Your task to perform on an android device: clear all cookies in the chrome app Image 0: 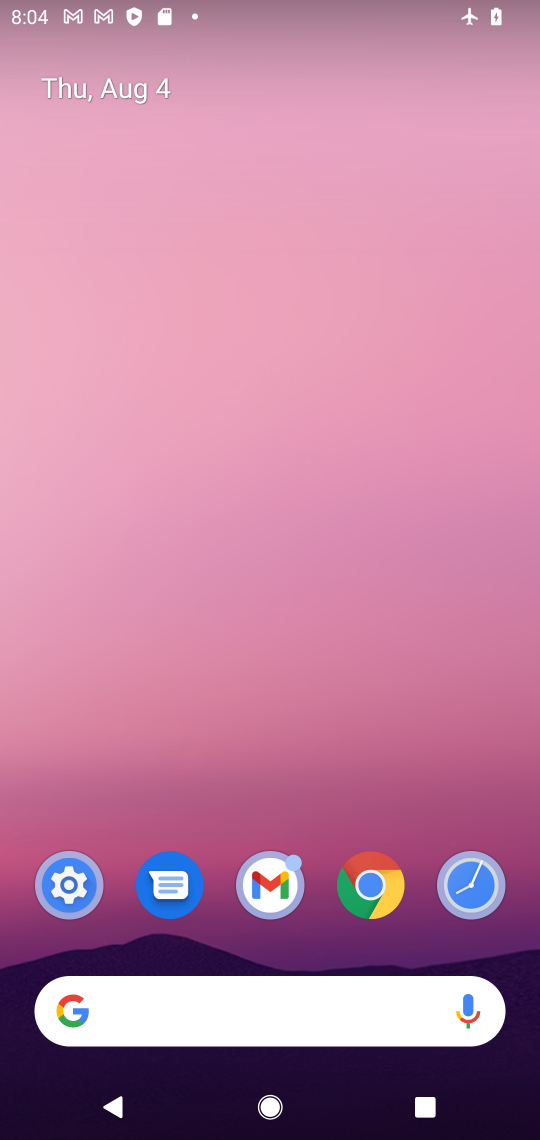
Step 0: press home button
Your task to perform on an android device: clear all cookies in the chrome app Image 1: 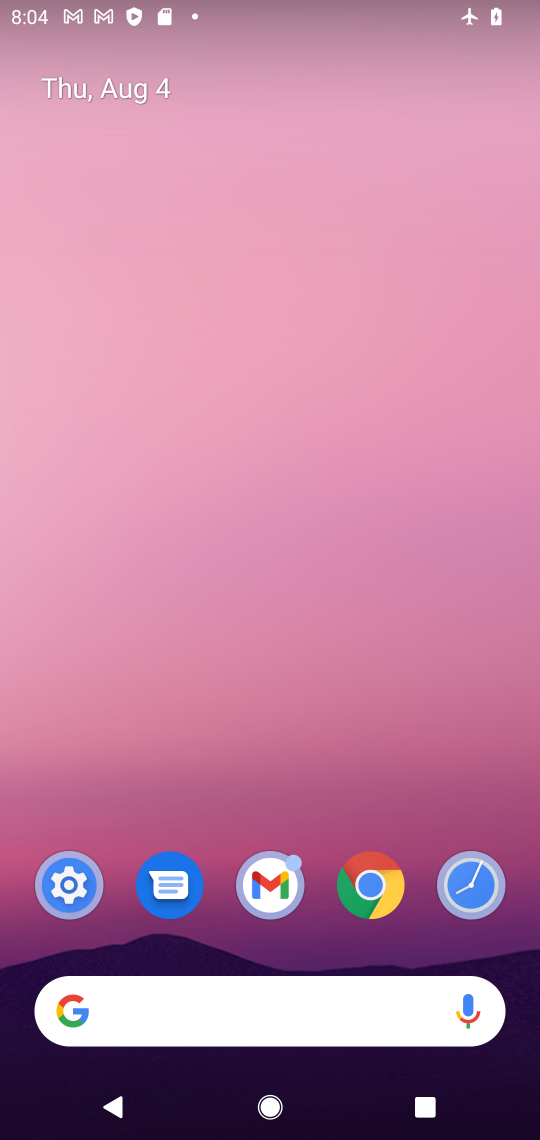
Step 1: press home button
Your task to perform on an android device: clear all cookies in the chrome app Image 2: 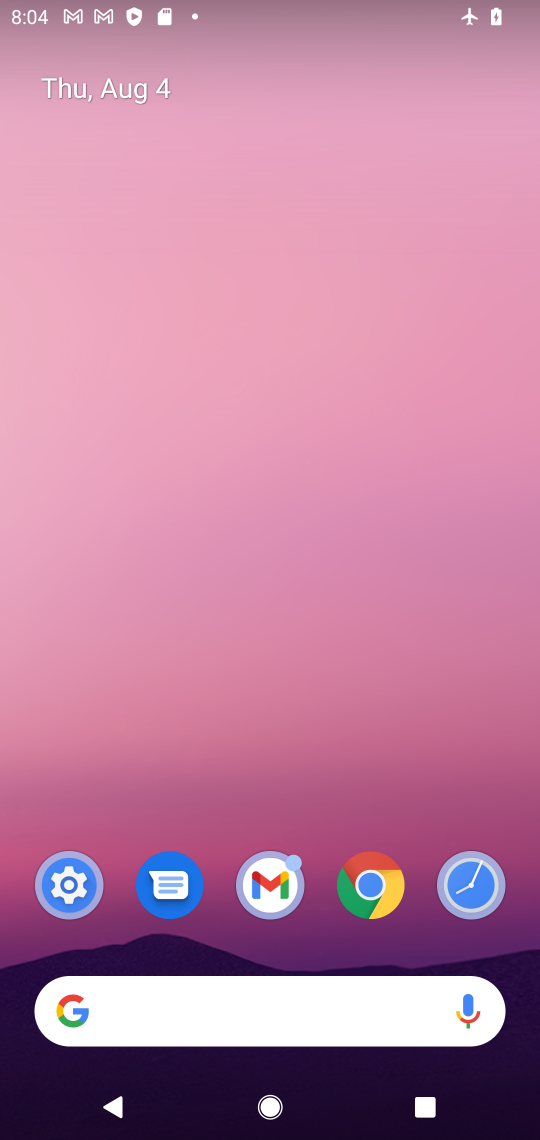
Step 2: press home button
Your task to perform on an android device: clear all cookies in the chrome app Image 3: 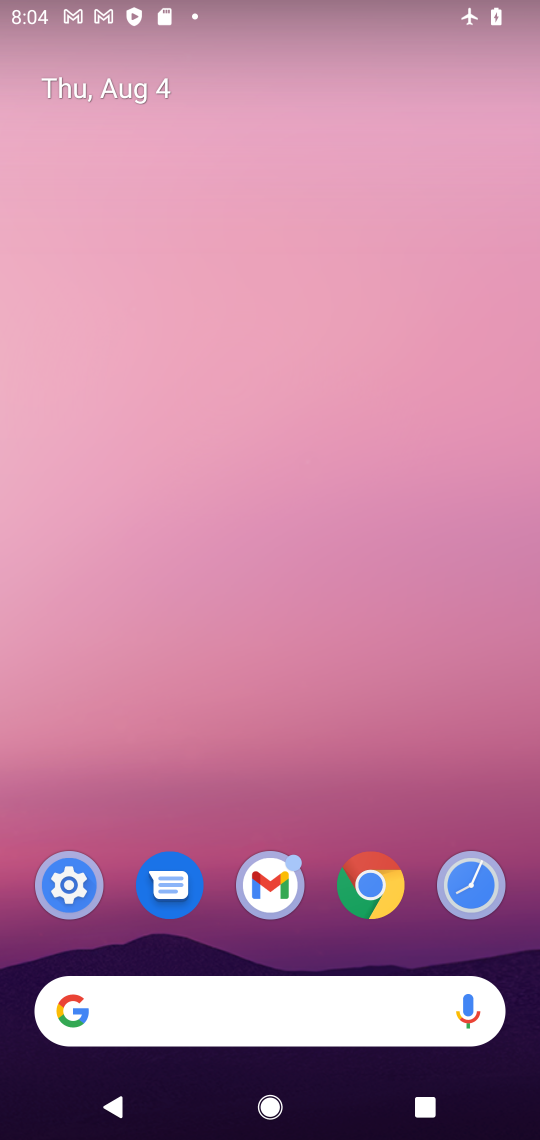
Step 3: click (379, 886)
Your task to perform on an android device: clear all cookies in the chrome app Image 4: 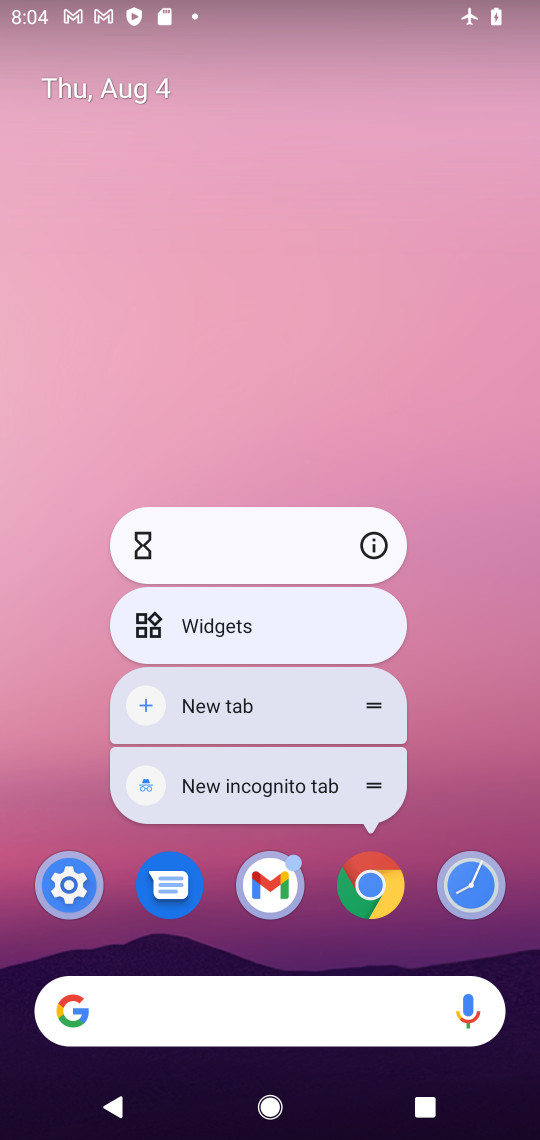
Step 4: click (383, 900)
Your task to perform on an android device: clear all cookies in the chrome app Image 5: 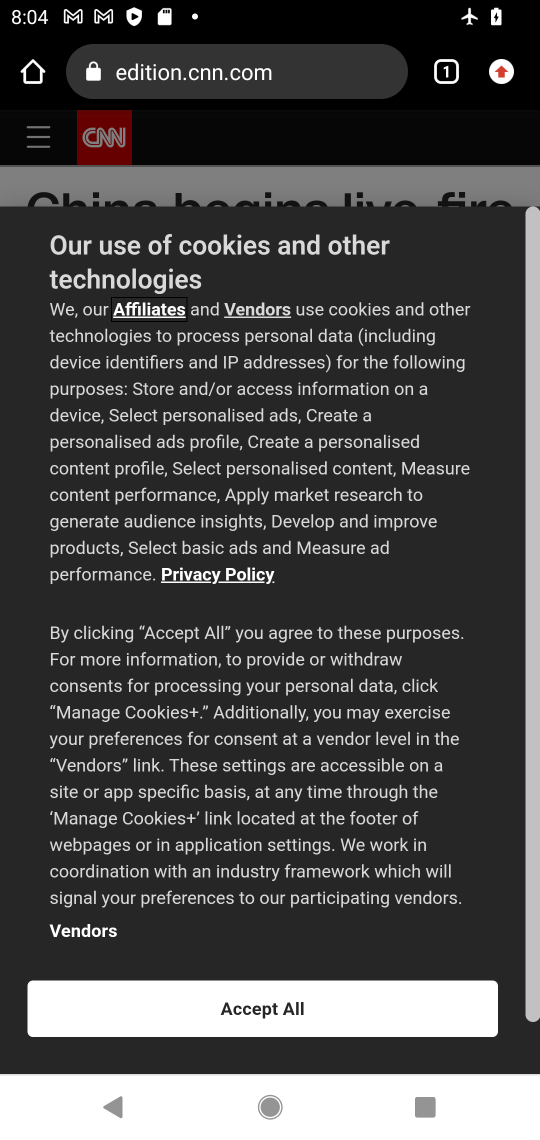
Step 5: click (492, 85)
Your task to perform on an android device: clear all cookies in the chrome app Image 6: 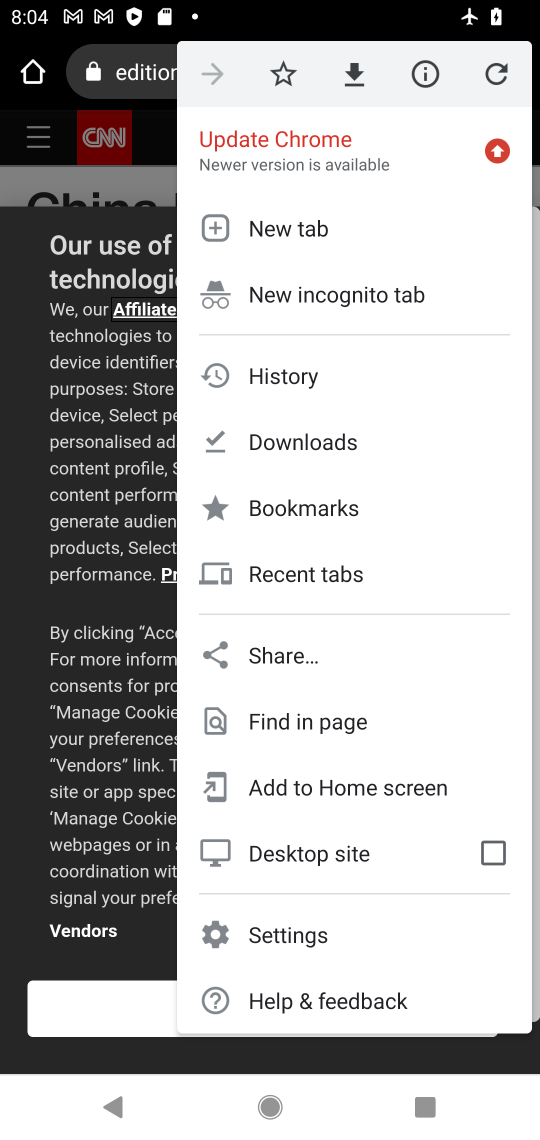
Step 6: click (286, 946)
Your task to perform on an android device: clear all cookies in the chrome app Image 7: 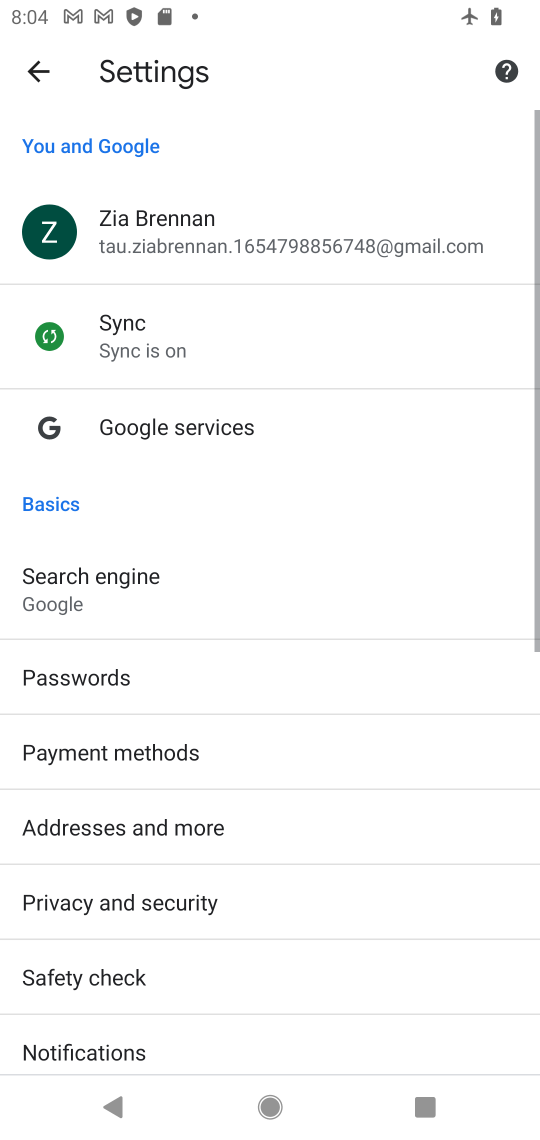
Step 7: drag from (225, 869) to (325, 118)
Your task to perform on an android device: clear all cookies in the chrome app Image 8: 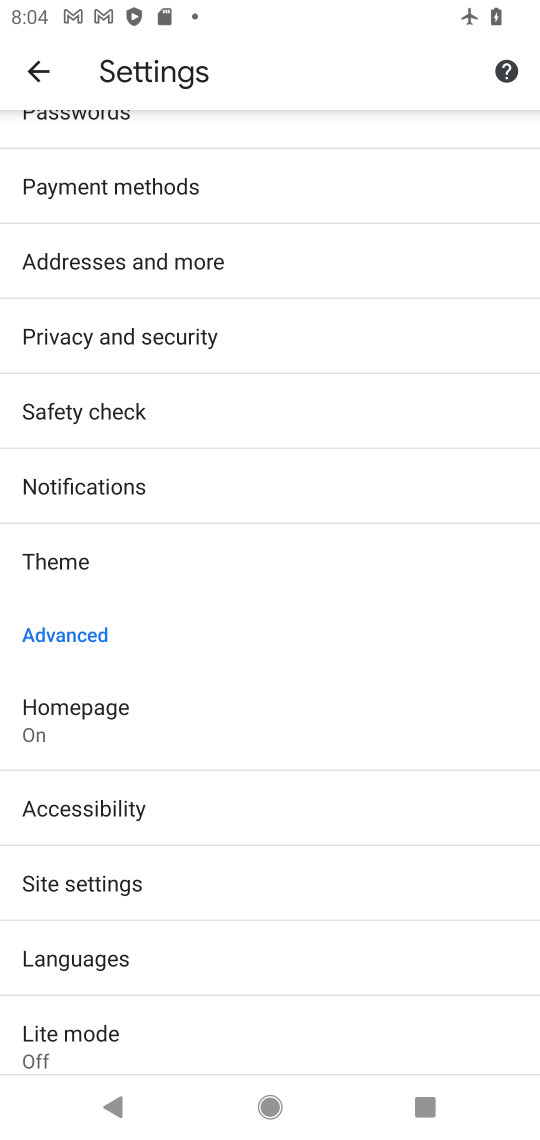
Step 8: drag from (151, 648) to (190, 59)
Your task to perform on an android device: clear all cookies in the chrome app Image 9: 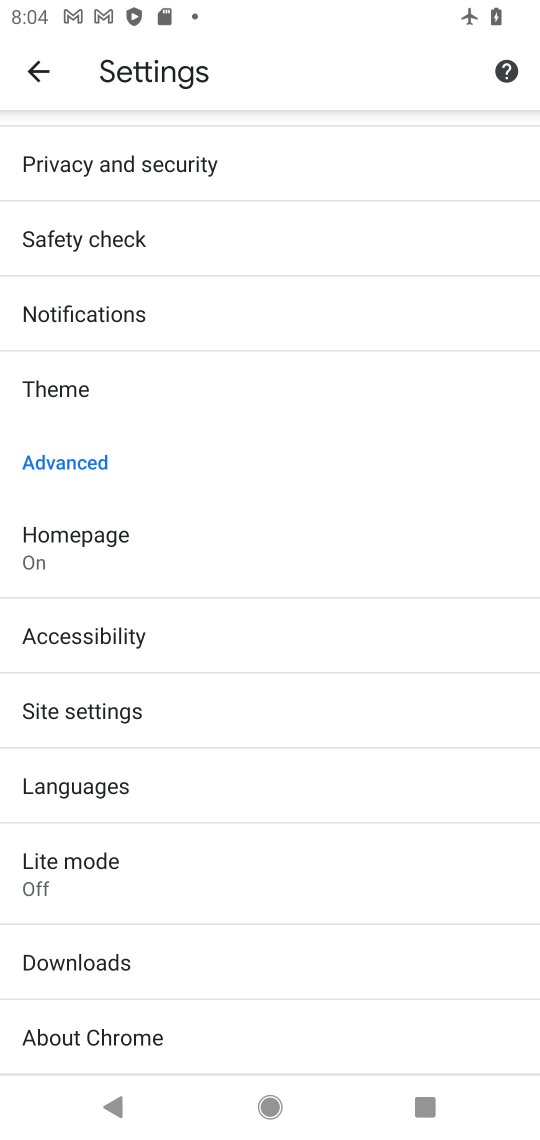
Step 9: drag from (116, 703) to (186, 334)
Your task to perform on an android device: clear all cookies in the chrome app Image 10: 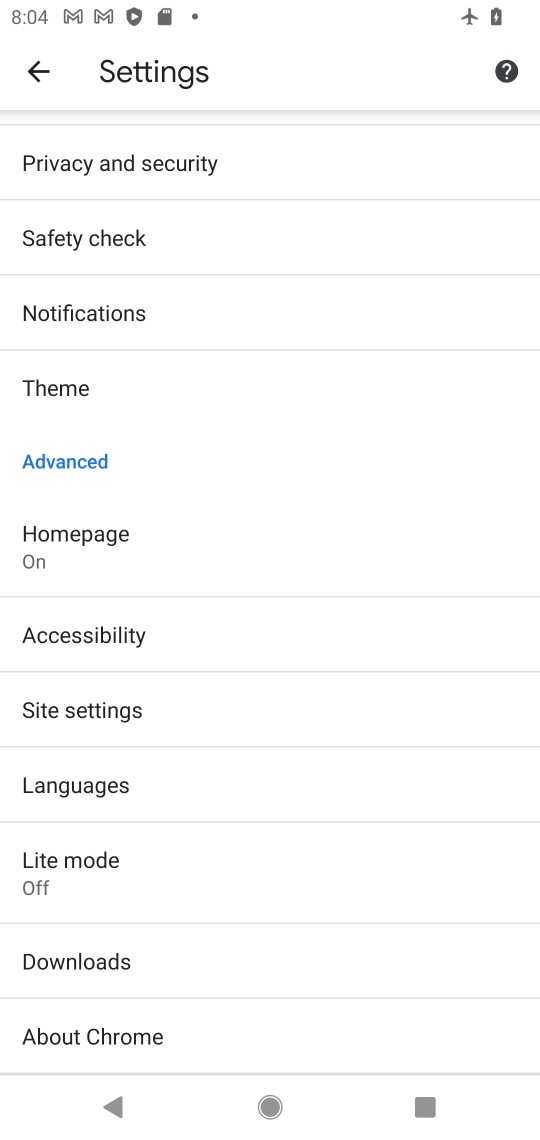
Step 10: drag from (186, 334) to (115, 818)
Your task to perform on an android device: clear all cookies in the chrome app Image 11: 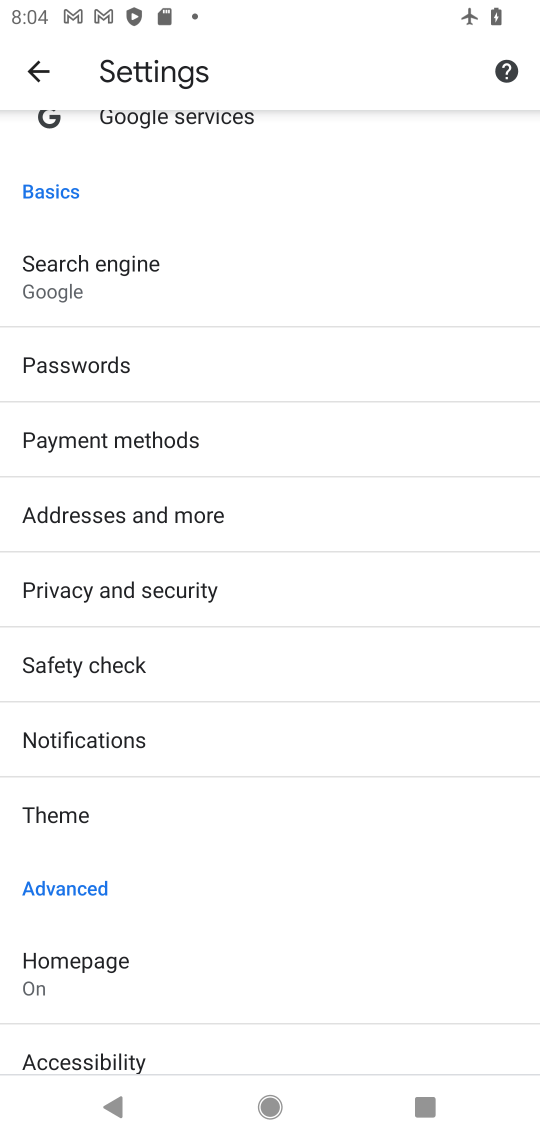
Step 11: drag from (162, 318) to (178, 581)
Your task to perform on an android device: clear all cookies in the chrome app Image 12: 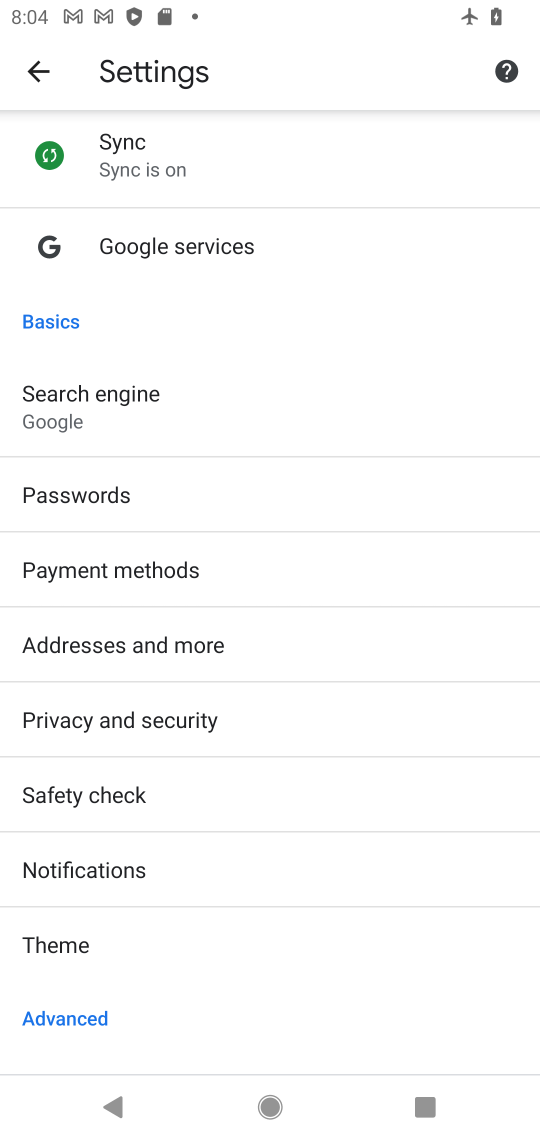
Step 12: click (138, 714)
Your task to perform on an android device: clear all cookies in the chrome app Image 13: 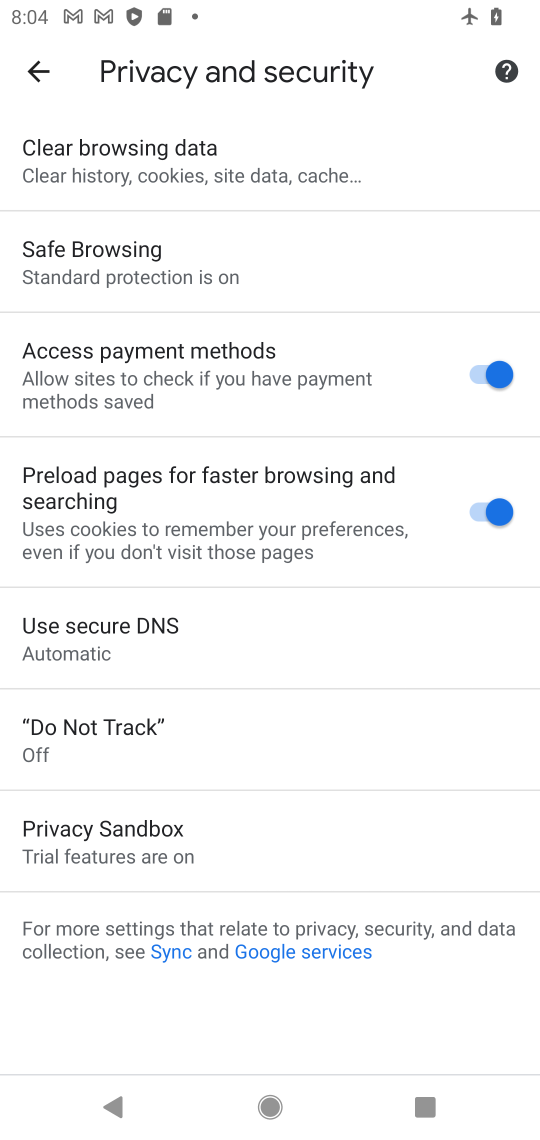
Step 13: click (80, 153)
Your task to perform on an android device: clear all cookies in the chrome app Image 14: 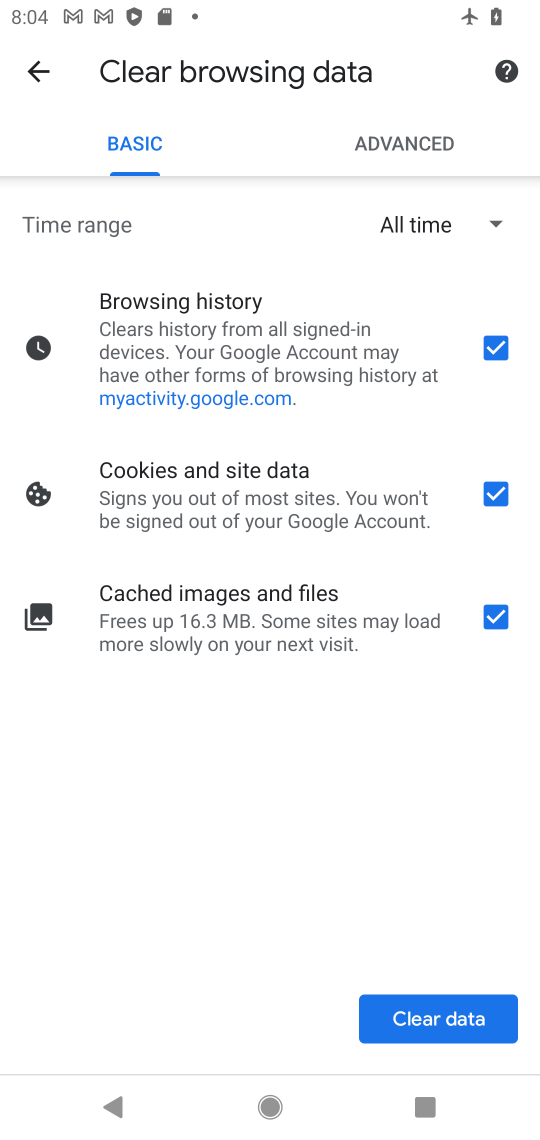
Step 14: click (443, 1017)
Your task to perform on an android device: clear all cookies in the chrome app Image 15: 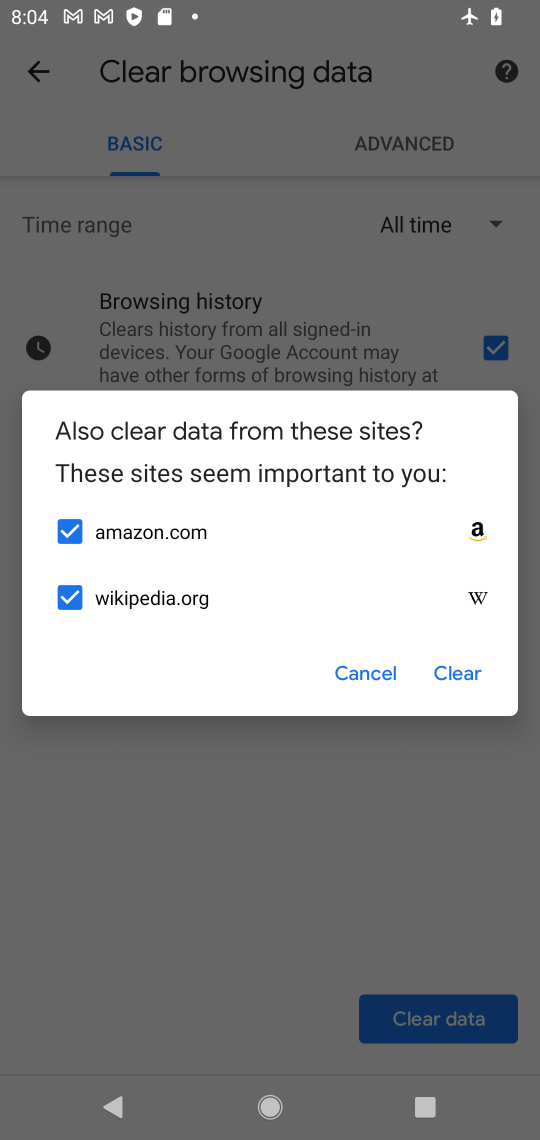
Step 15: click (437, 683)
Your task to perform on an android device: clear all cookies in the chrome app Image 16: 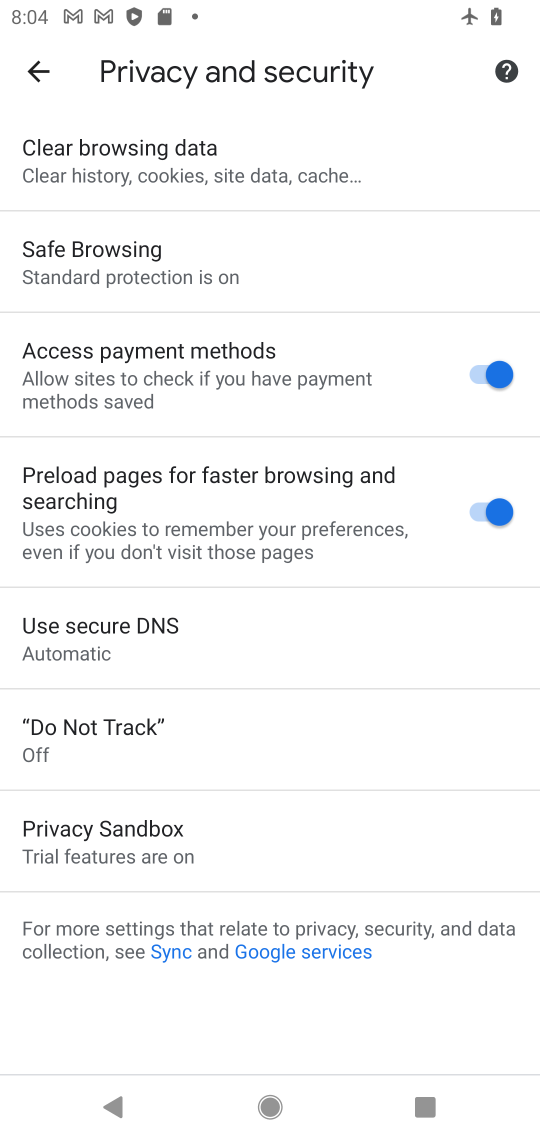
Step 16: task complete